Your task to perform on an android device: turn off translation in the chrome app Image 0: 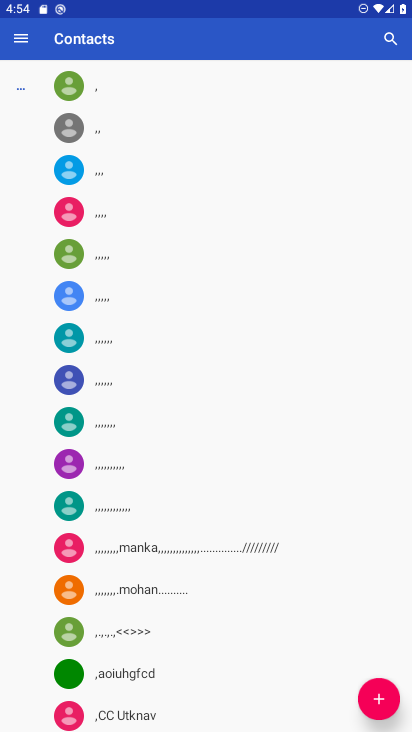
Step 0: press home button
Your task to perform on an android device: turn off translation in the chrome app Image 1: 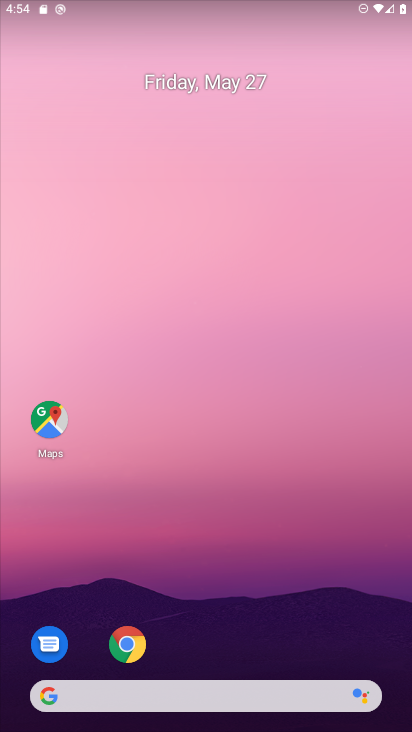
Step 1: click (124, 640)
Your task to perform on an android device: turn off translation in the chrome app Image 2: 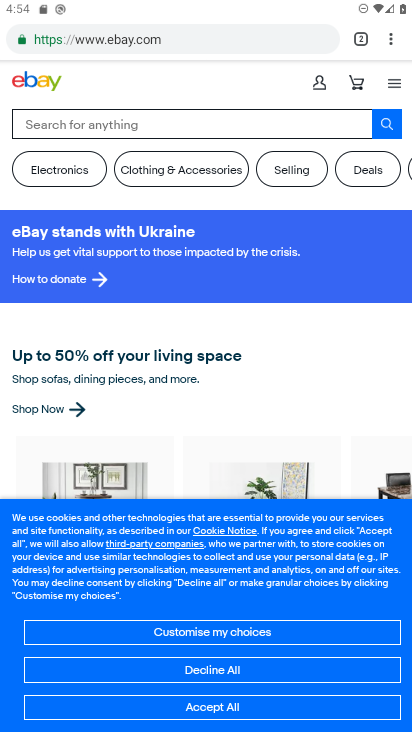
Step 2: click (395, 37)
Your task to perform on an android device: turn off translation in the chrome app Image 3: 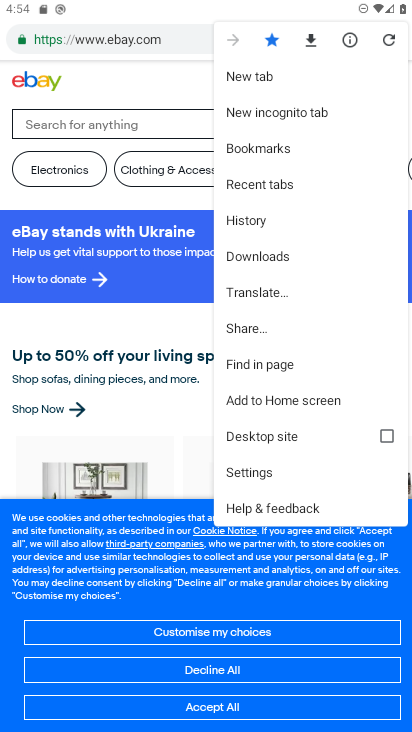
Step 3: click (258, 464)
Your task to perform on an android device: turn off translation in the chrome app Image 4: 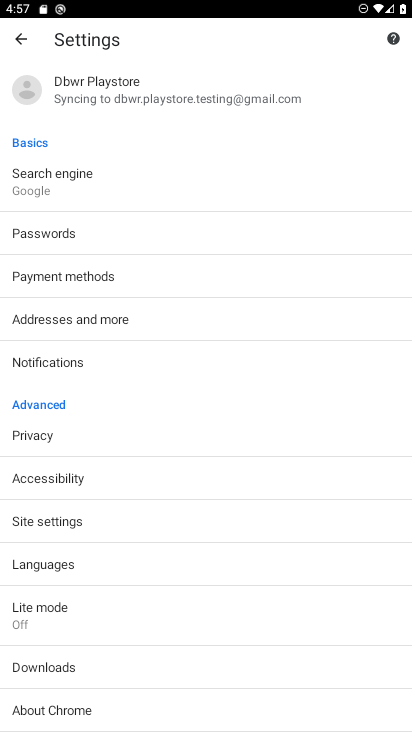
Step 4: click (39, 569)
Your task to perform on an android device: turn off translation in the chrome app Image 5: 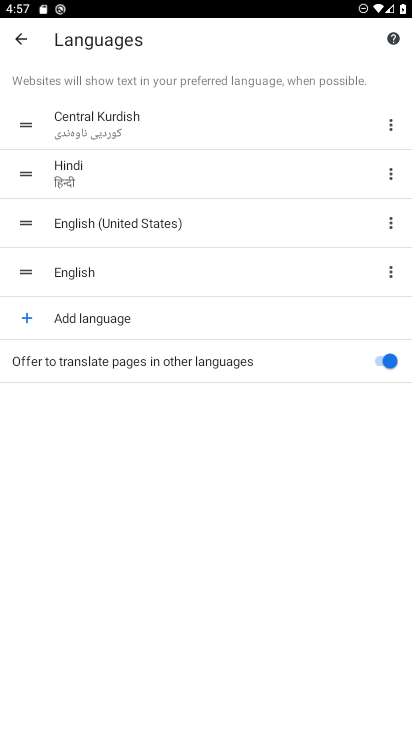
Step 5: click (390, 351)
Your task to perform on an android device: turn off translation in the chrome app Image 6: 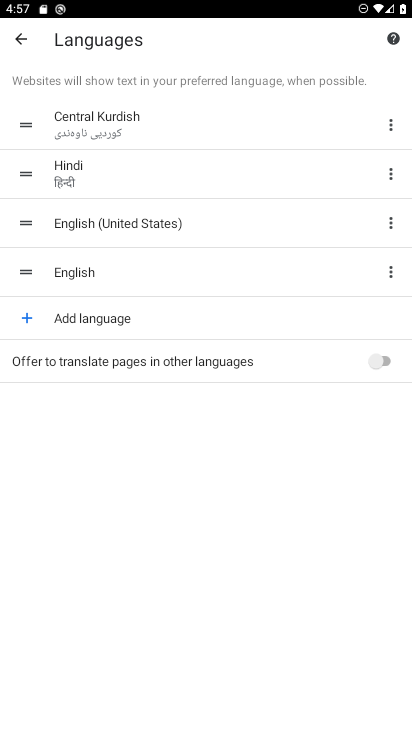
Step 6: task complete